Your task to perform on an android device: turn on airplane mode Image 0: 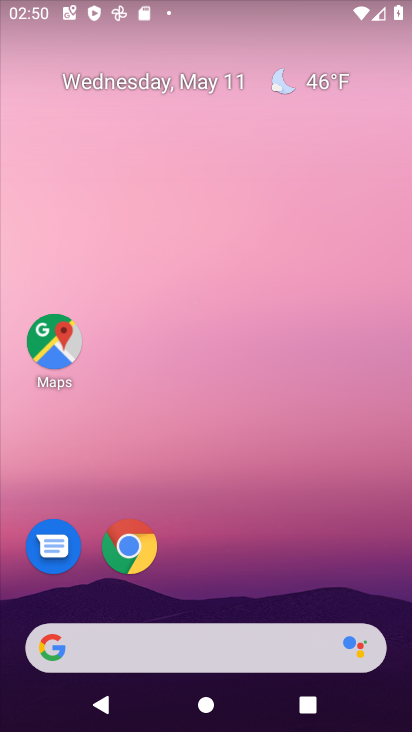
Step 0: drag from (199, 546) to (285, 3)
Your task to perform on an android device: turn on airplane mode Image 1: 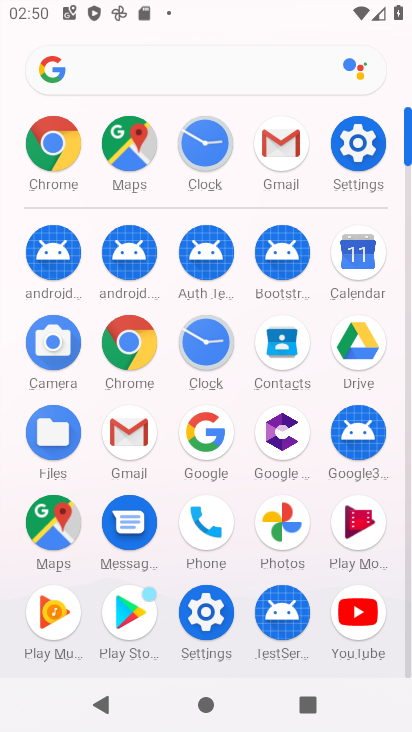
Step 1: click (204, 606)
Your task to perform on an android device: turn on airplane mode Image 2: 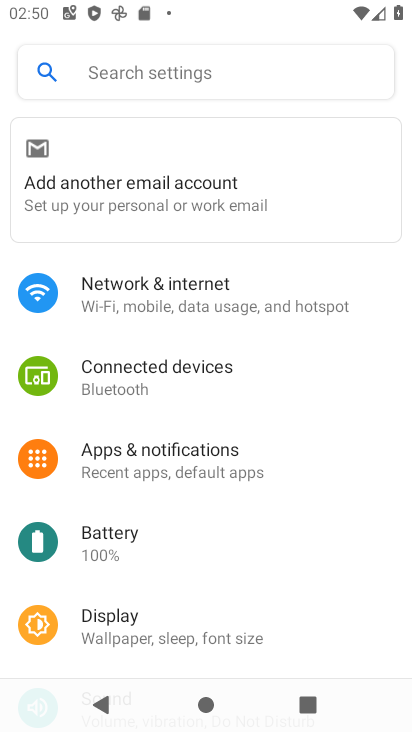
Step 2: click (165, 303)
Your task to perform on an android device: turn on airplane mode Image 3: 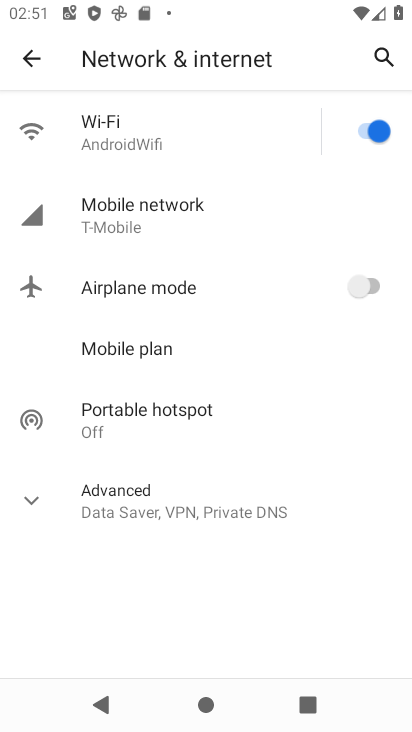
Step 3: click (246, 295)
Your task to perform on an android device: turn on airplane mode Image 4: 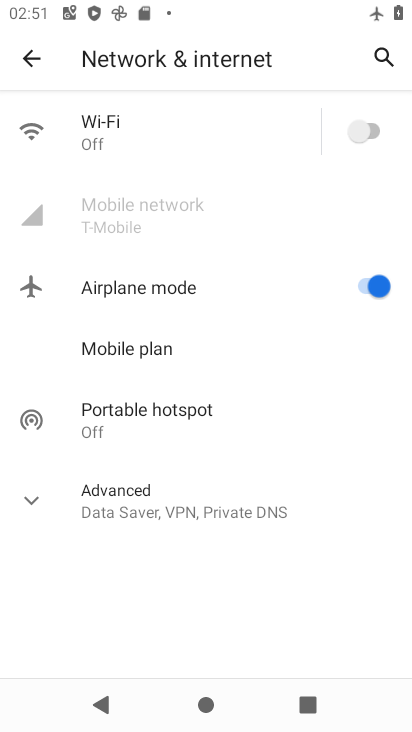
Step 4: task complete